Your task to perform on an android device: toggle location history Image 0: 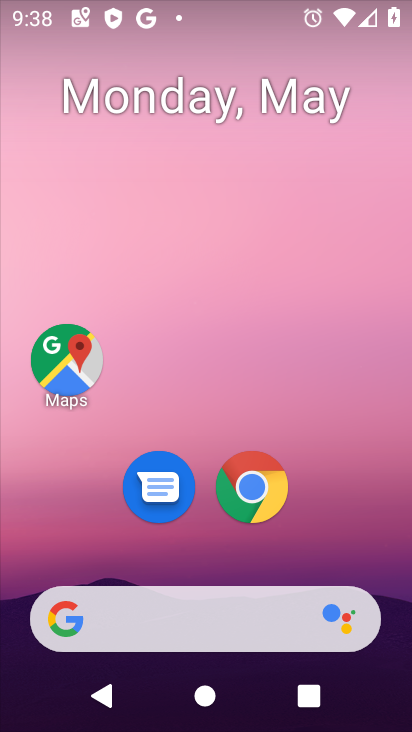
Step 0: drag from (189, 516) to (233, 81)
Your task to perform on an android device: toggle location history Image 1: 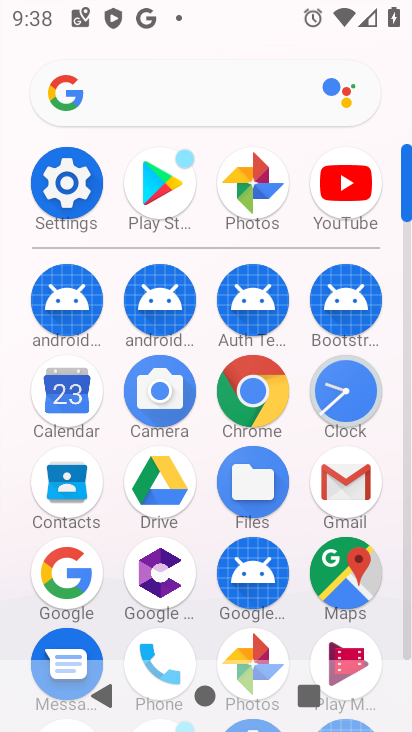
Step 1: click (78, 190)
Your task to perform on an android device: toggle location history Image 2: 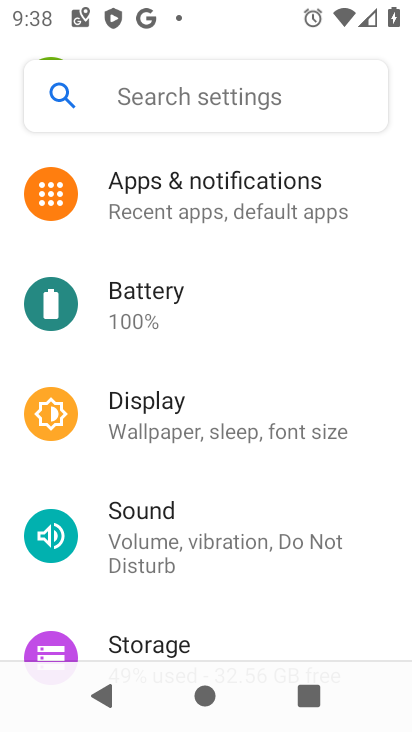
Step 2: drag from (90, 593) to (122, 194)
Your task to perform on an android device: toggle location history Image 3: 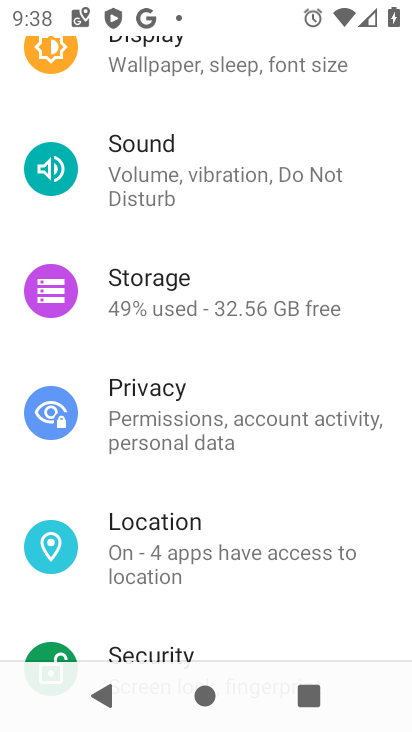
Step 3: click (131, 553)
Your task to perform on an android device: toggle location history Image 4: 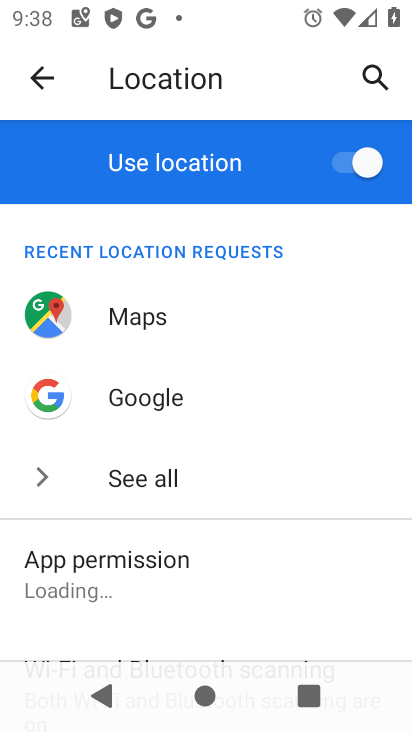
Step 4: drag from (59, 635) to (185, 167)
Your task to perform on an android device: toggle location history Image 5: 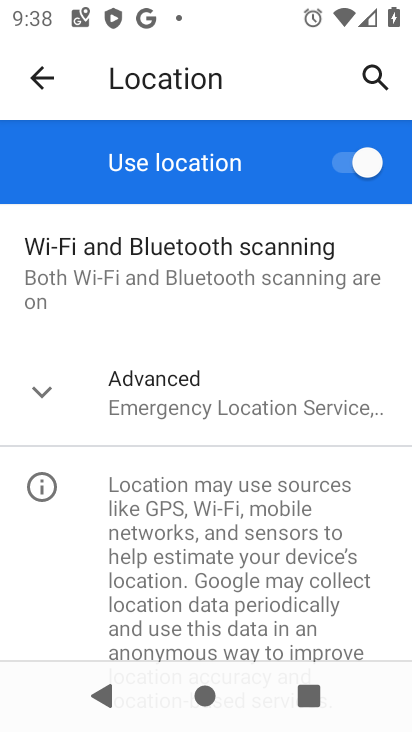
Step 5: click (165, 377)
Your task to perform on an android device: toggle location history Image 6: 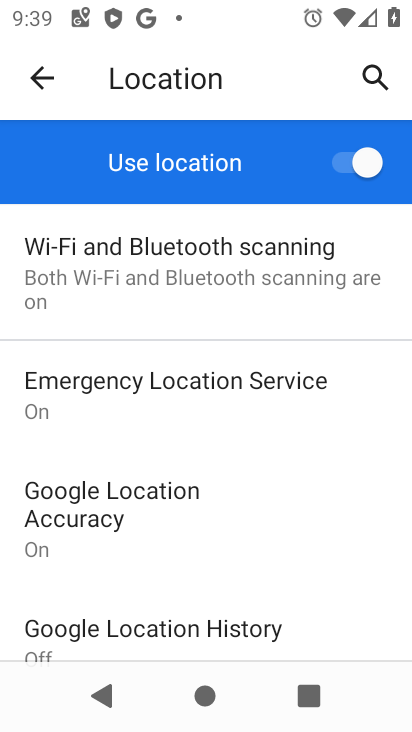
Step 6: click (217, 617)
Your task to perform on an android device: toggle location history Image 7: 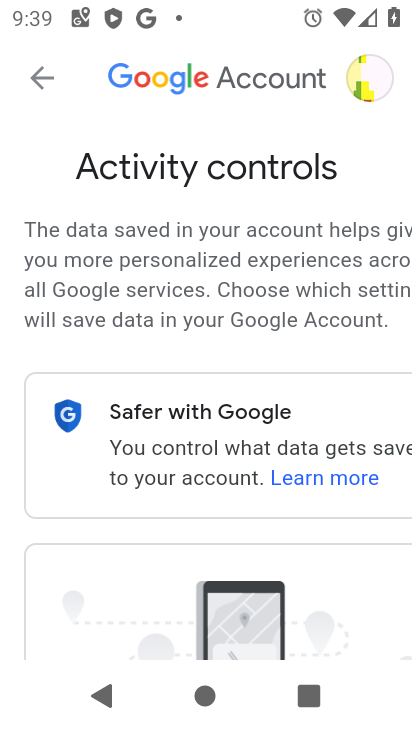
Step 7: drag from (120, 596) to (219, 208)
Your task to perform on an android device: toggle location history Image 8: 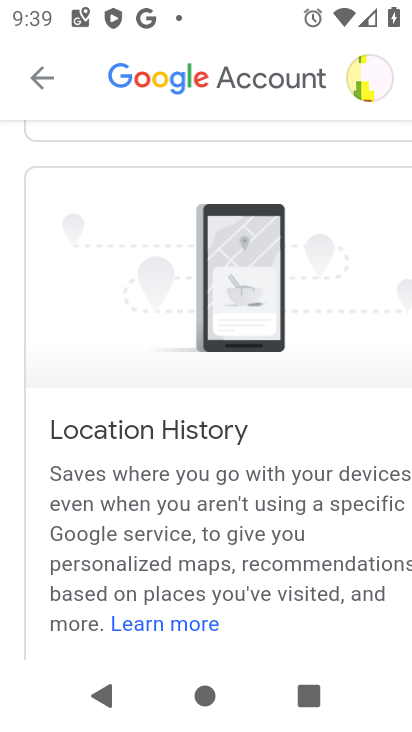
Step 8: drag from (112, 565) to (186, 160)
Your task to perform on an android device: toggle location history Image 9: 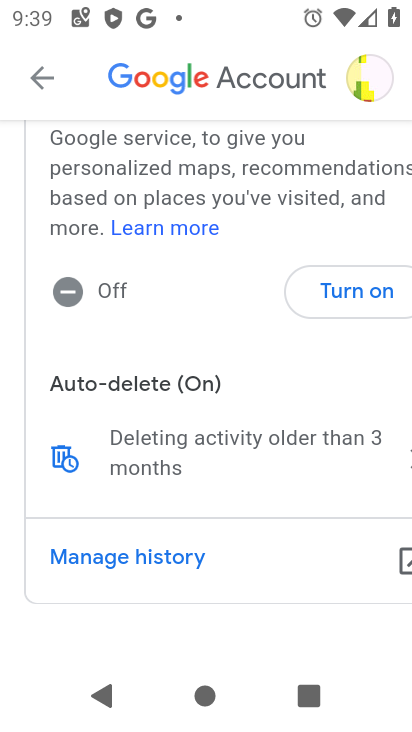
Step 9: click (335, 301)
Your task to perform on an android device: toggle location history Image 10: 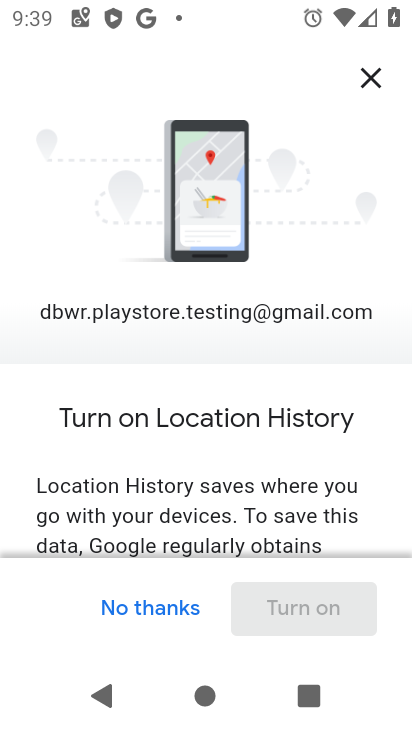
Step 10: drag from (147, 479) to (152, 158)
Your task to perform on an android device: toggle location history Image 11: 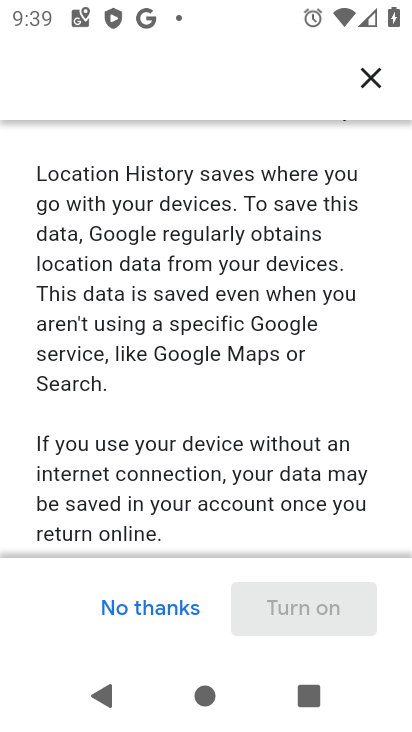
Step 11: drag from (155, 509) to (214, 165)
Your task to perform on an android device: toggle location history Image 12: 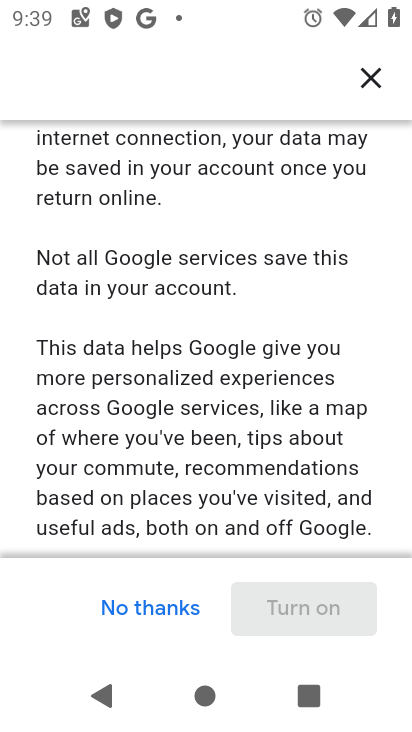
Step 12: drag from (185, 498) to (258, 70)
Your task to perform on an android device: toggle location history Image 13: 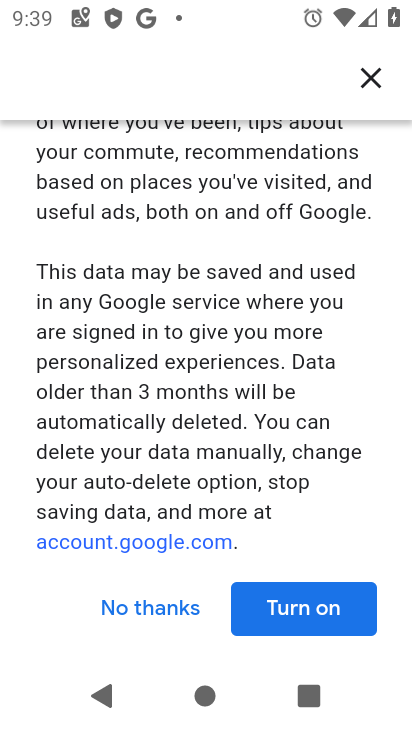
Step 13: click (298, 584)
Your task to perform on an android device: toggle location history Image 14: 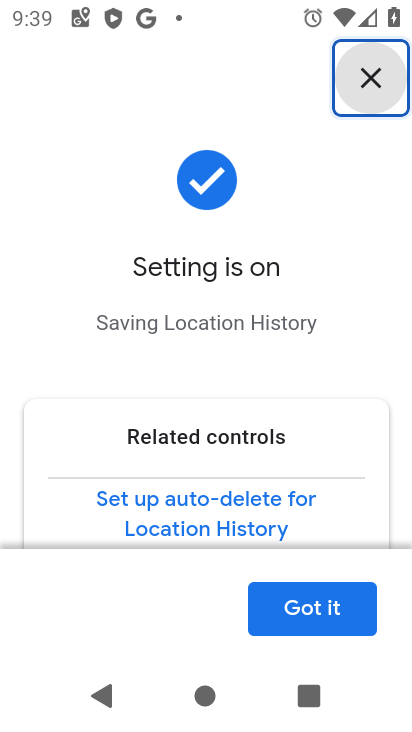
Step 14: click (295, 627)
Your task to perform on an android device: toggle location history Image 15: 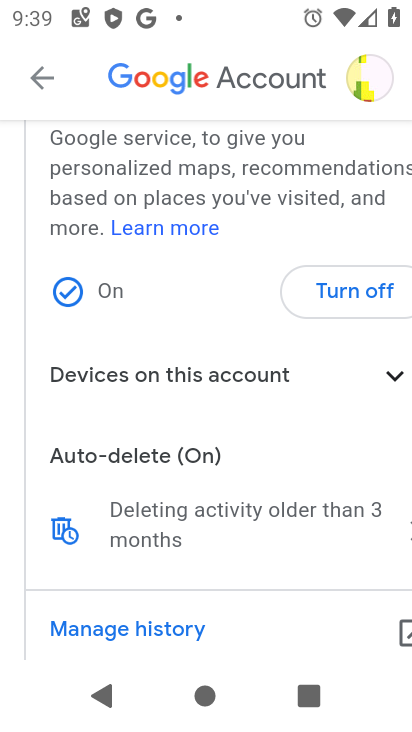
Step 15: task complete